Your task to perform on an android device: Do I have any events today? Image 0: 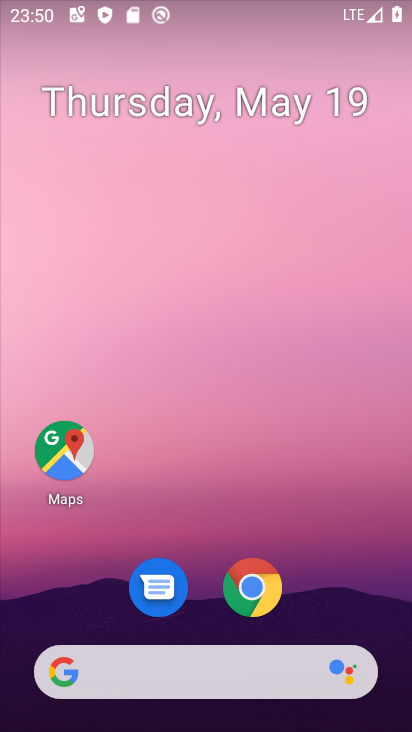
Step 0: drag from (242, 706) to (332, 115)
Your task to perform on an android device: Do I have any events today? Image 1: 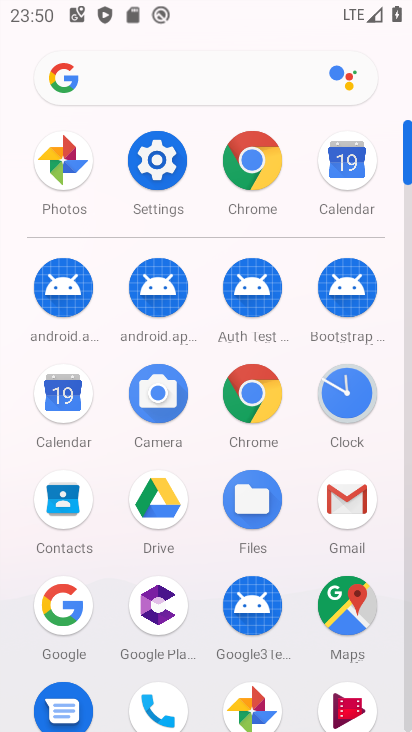
Step 1: click (74, 403)
Your task to perform on an android device: Do I have any events today? Image 2: 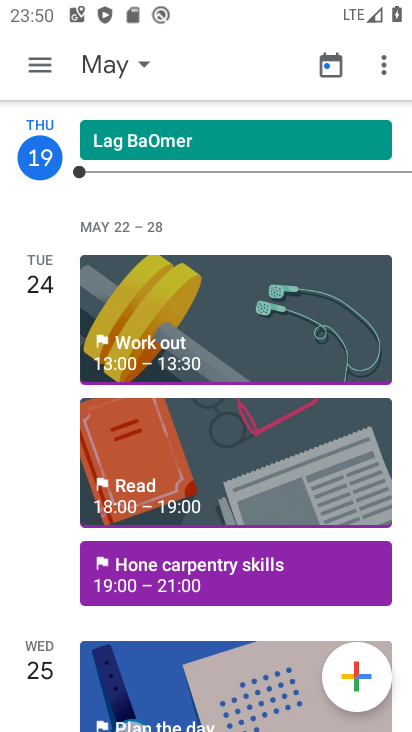
Step 2: click (43, 66)
Your task to perform on an android device: Do I have any events today? Image 3: 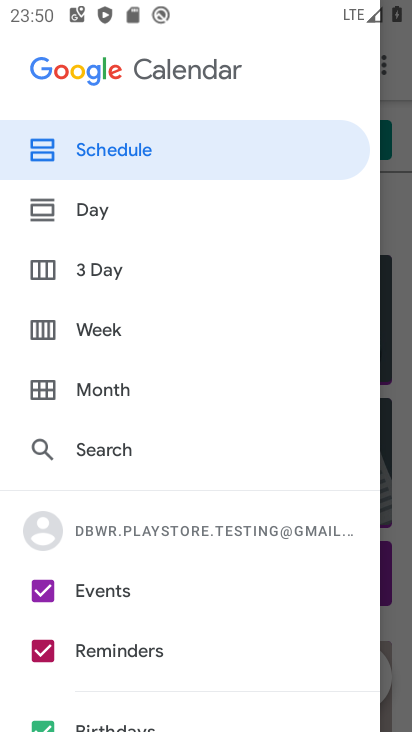
Step 3: click (85, 213)
Your task to perform on an android device: Do I have any events today? Image 4: 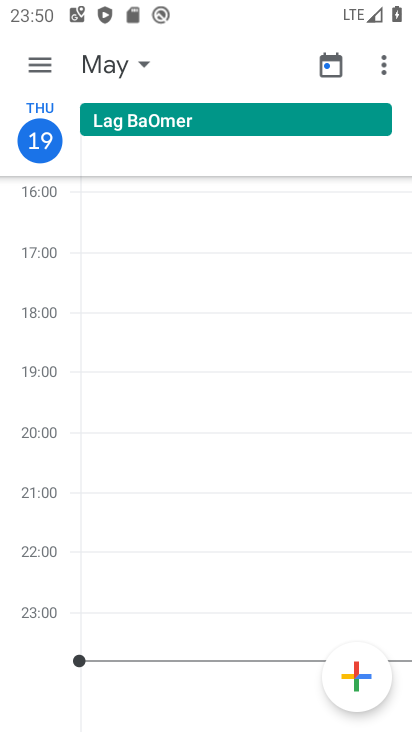
Step 4: task complete